Your task to perform on an android device: Open Google Chrome and open the bookmarks view Image 0: 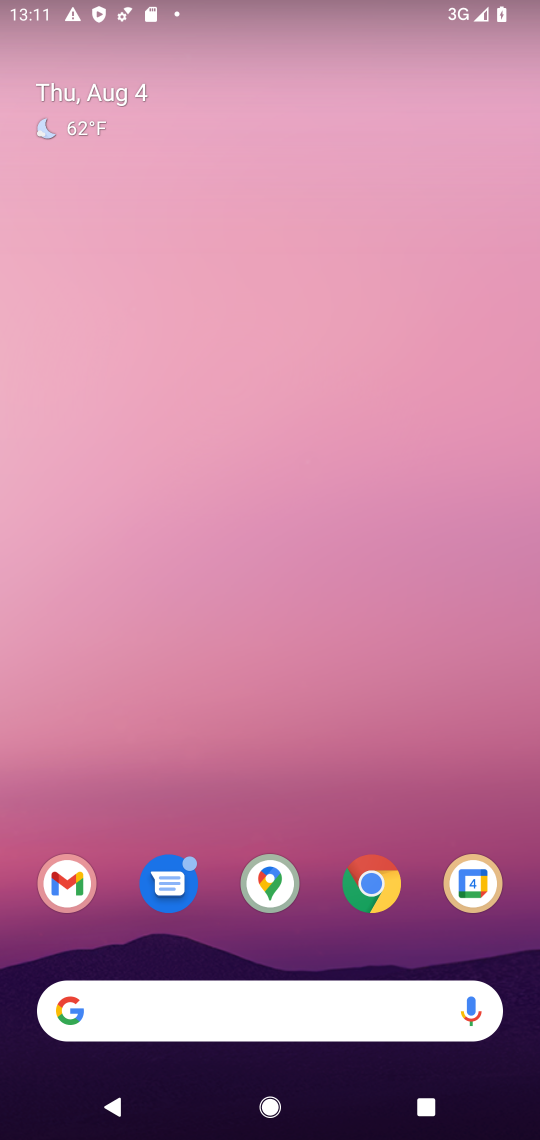
Step 0: drag from (271, 903) to (316, 348)
Your task to perform on an android device: Open Google Chrome and open the bookmarks view Image 1: 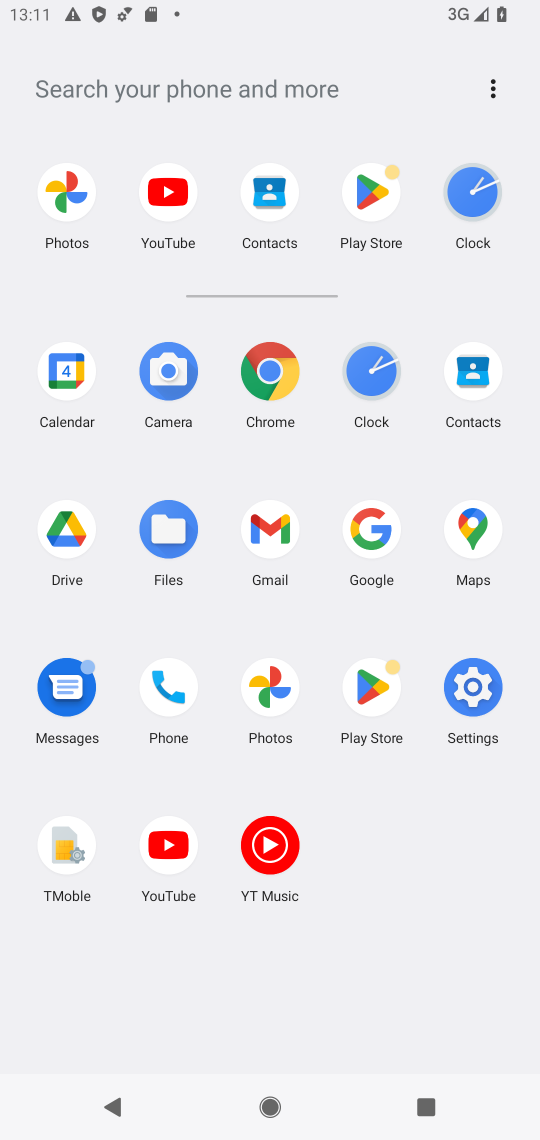
Step 1: click (258, 363)
Your task to perform on an android device: Open Google Chrome and open the bookmarks view Image 2: 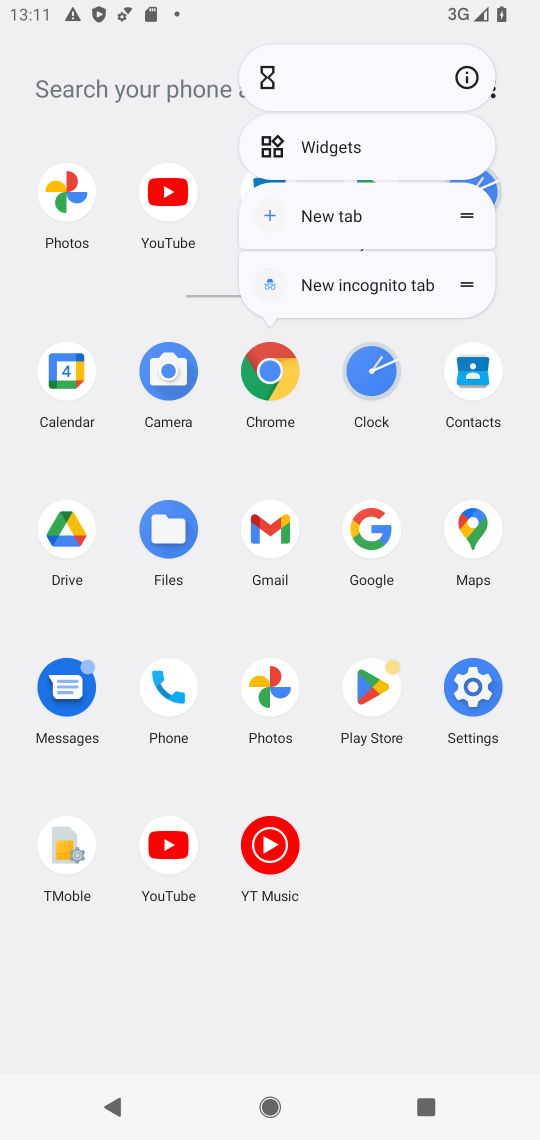
Step 2: click (472, 76)
Your task to perform on an android device: Open Google Chrome and open the bookmarks view Image 3: 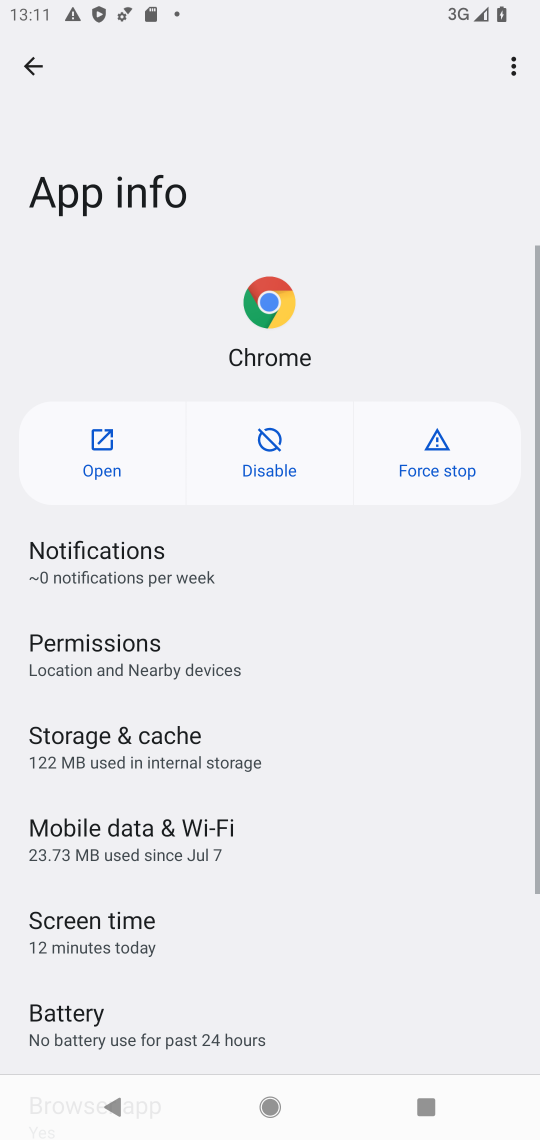
Step 3: click (112, 458)
Your task to perform on an android device: Open Google Chrome and open the bookmarks view Image 4: 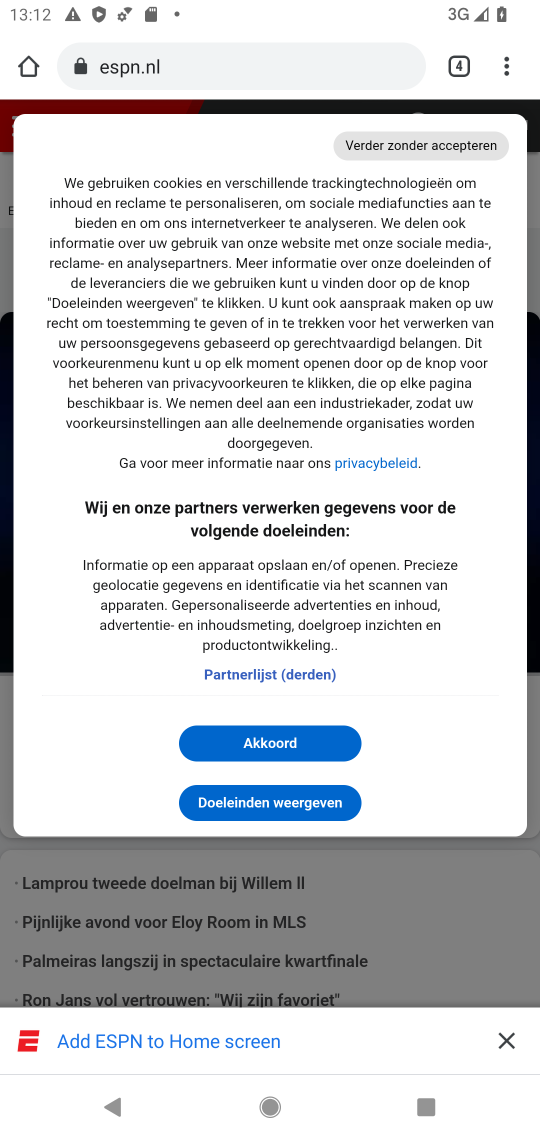
Step 4: task complete